Your task to perform on an android device: check the backup settings in the google photos Image 0: 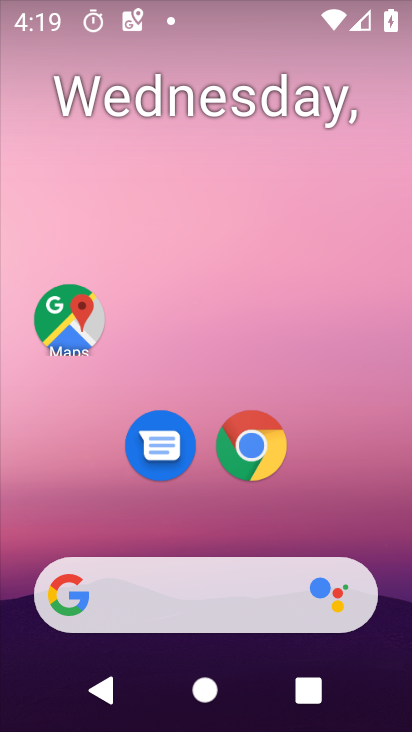
Step 0: drag from (218, 504) to (197, 126)
Your task to perform on an android device: check the backup settings in the google photos Image 1: 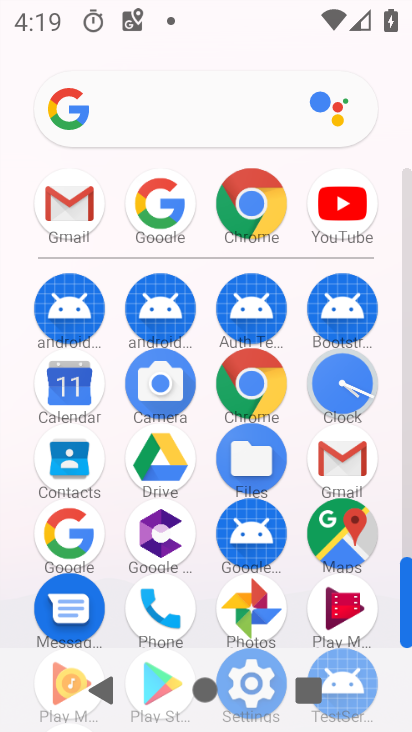
Step 1: click (249, 608)
Your task to perform on an android device: check the backup settings in the google photos Image 2: 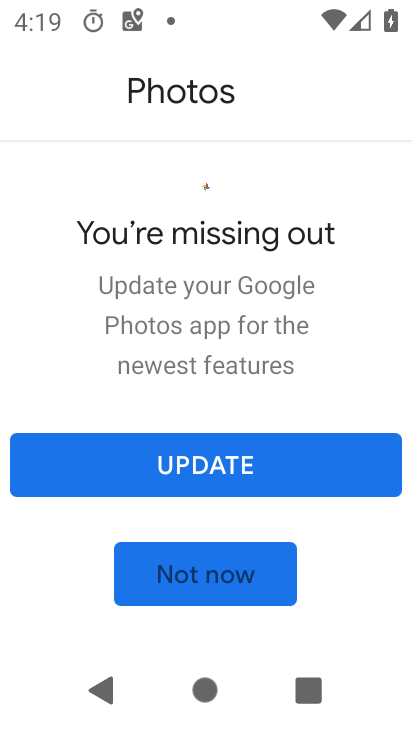
Step 2: click (188, 469)
Your task to perform on an android device: check the backup settings in the google photos Image 3: 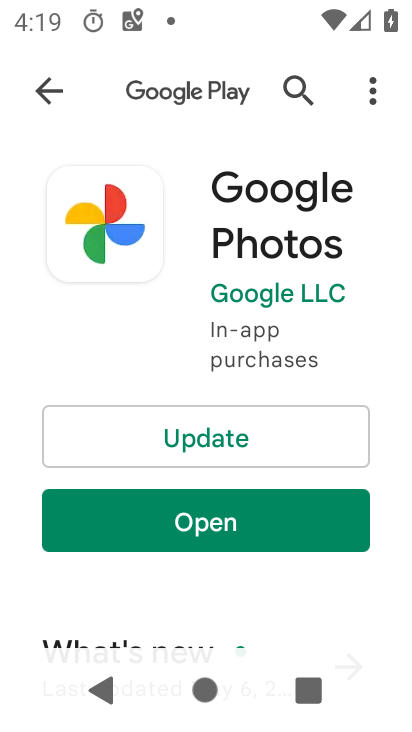
Step 3: click (204, 444)
Your task to perform on an android device: check the backup settings in the google photos Image 4: 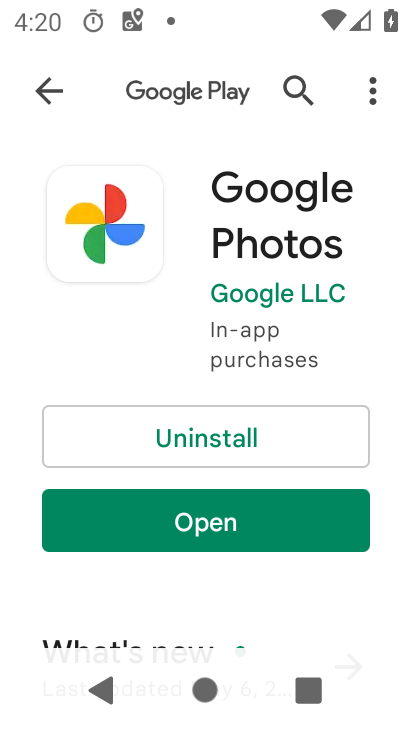
Step 4: click (205, 527)
Your task to perform on an android device: check the backup settings in the google photos Image 5: 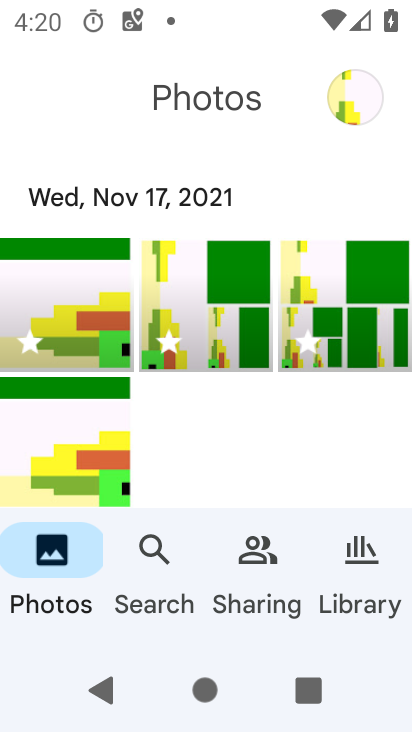
Step 5: click (356, 105)
Your task to perform on an android device: check the backup settings in the google photos Image 6: 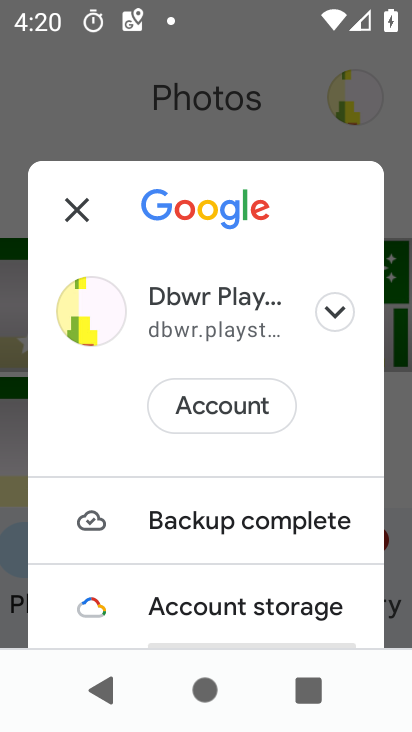
Step 6: drag from (221, 523) to (241, 389)
Your task to perform on an android device: check the backup settings in the google photos Image 7: 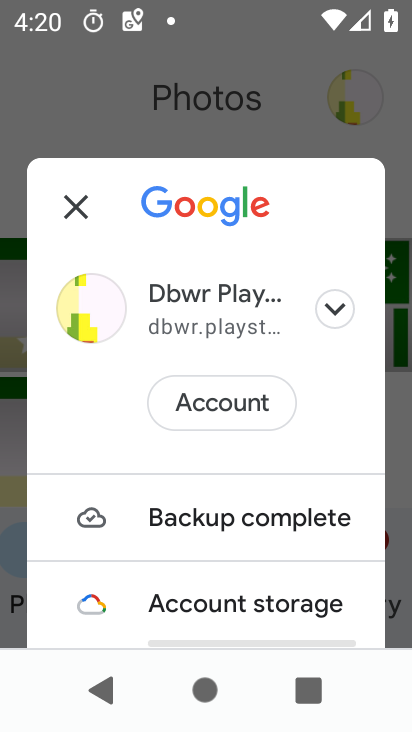
Step 7: drag from (261, 543) to (247, 255)
Your task to perform on an android device: check the backup settings in the google photos Image 8: 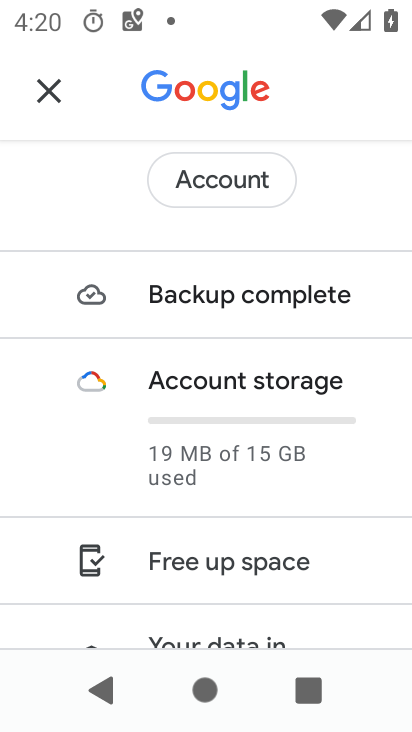
Step 8: click (206, 293)
Your task to perform on an android device: check the backup settings in the google photos Image 9: 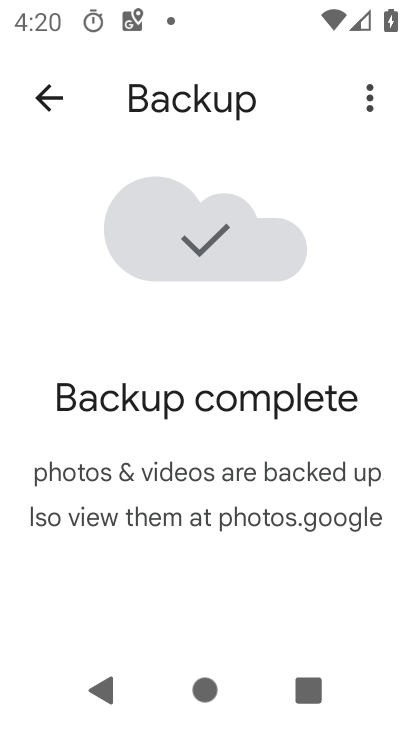
Step 9: task complete